Your task to perform on an android device: Go to notification settings Image 0: 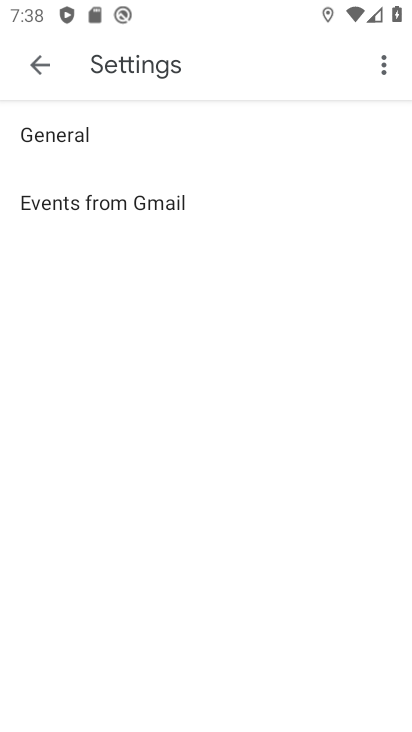
Step 0: press back button
Your task to perform on an android device: Go to notification settings Image 1: 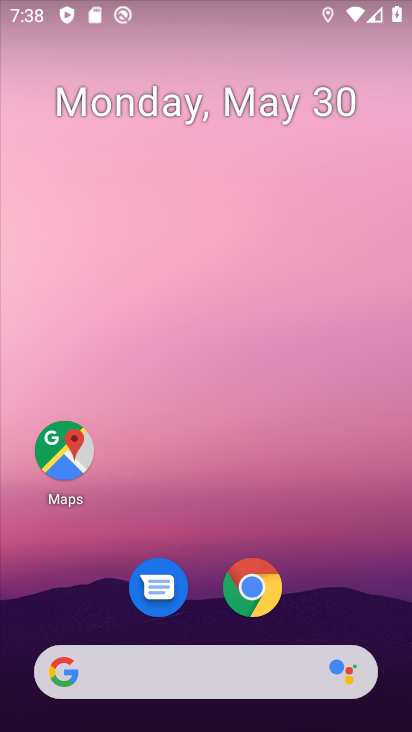
Step 1: drag from (286, 386) to (232, 27)
Your task to perform on an android device: Go to notification settings Image 2: 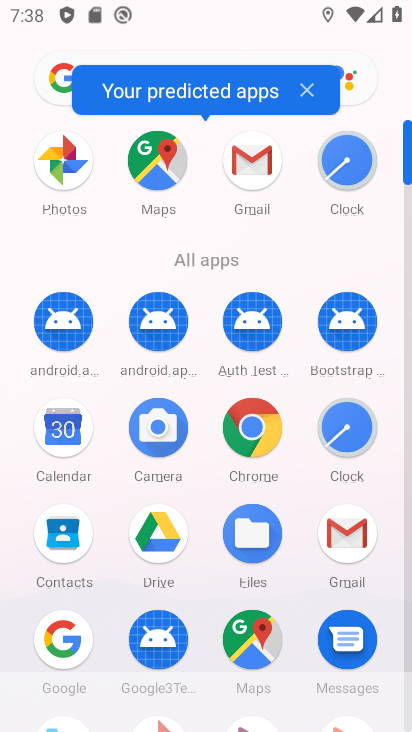
Step 2: drag from (24, 522) to (50, 195)
Your task to perform on an android device: Go to notification settings Image 3: 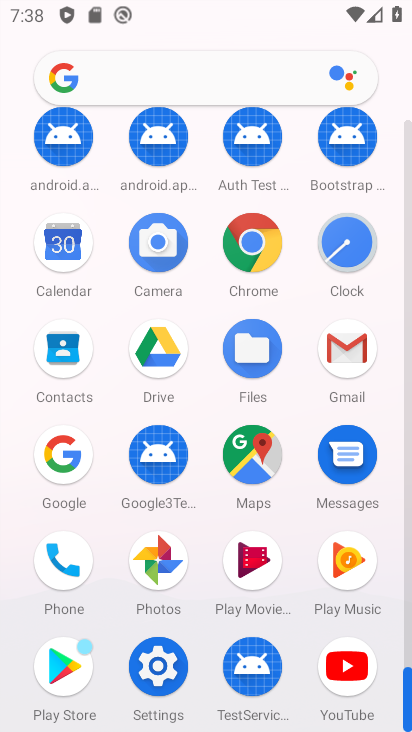
Step 3: click (154, 668)
Your task to perform on an android device: Go to notification settings Image 4: 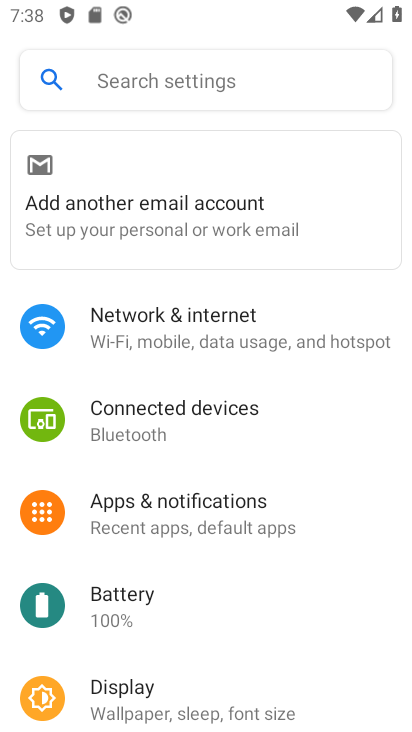
Step 4: click (231, 528)
Your task to perform on an android device: Go to notification settings Image 5: 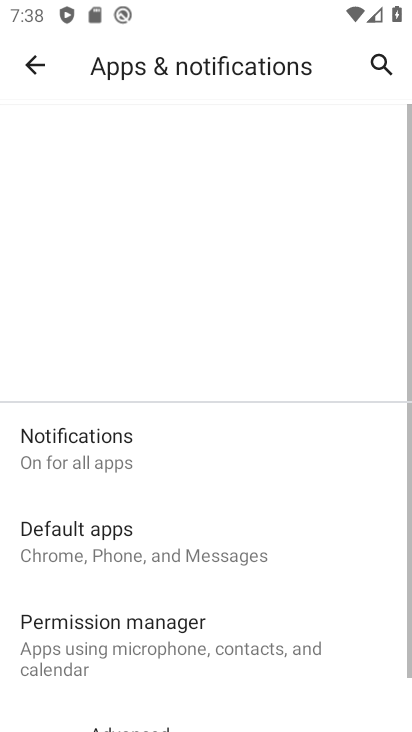
Step 5: click (141, 458)
Your task to perform on an android device: Go to notification settings Image 6: 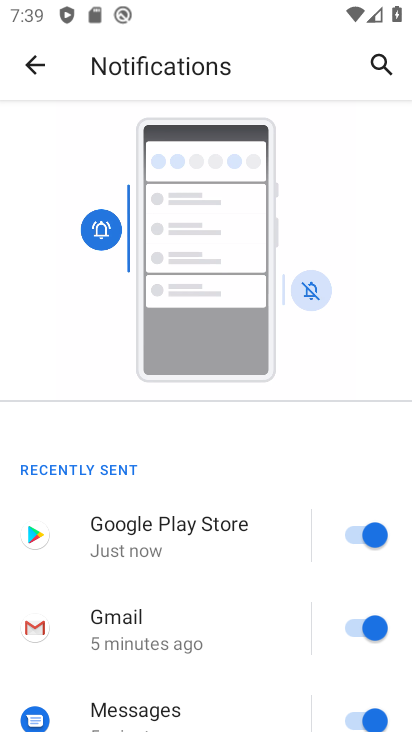
Step 6: drag from (252, 589) to (283, 184)
Your task to perform on an android device: Go to notification settings Image 7: 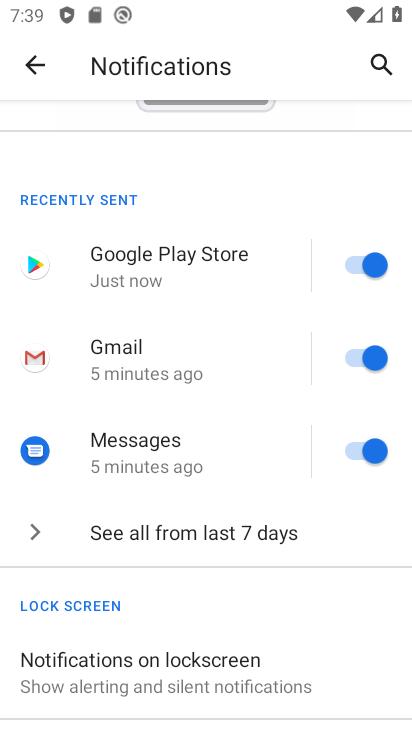
Step 7: drag from (219, 607) to (250, 175)
Your task to perform on an android device: Go to notification settings Image 8: 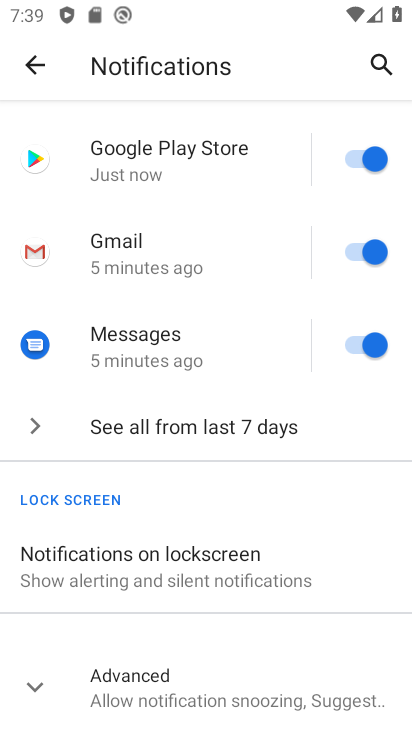
Step 8: click (60, 694)
Your task to perform on an android device: Go to notification settings Image 9: 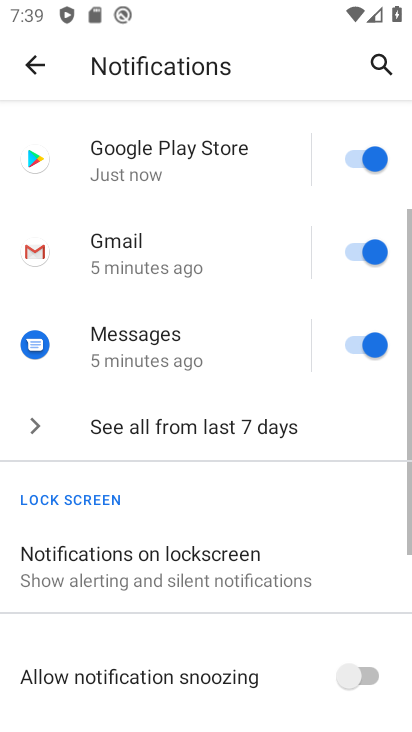
Step 9: task complete